Your task to perform on an android device: uninstall "Clock" Image 0: 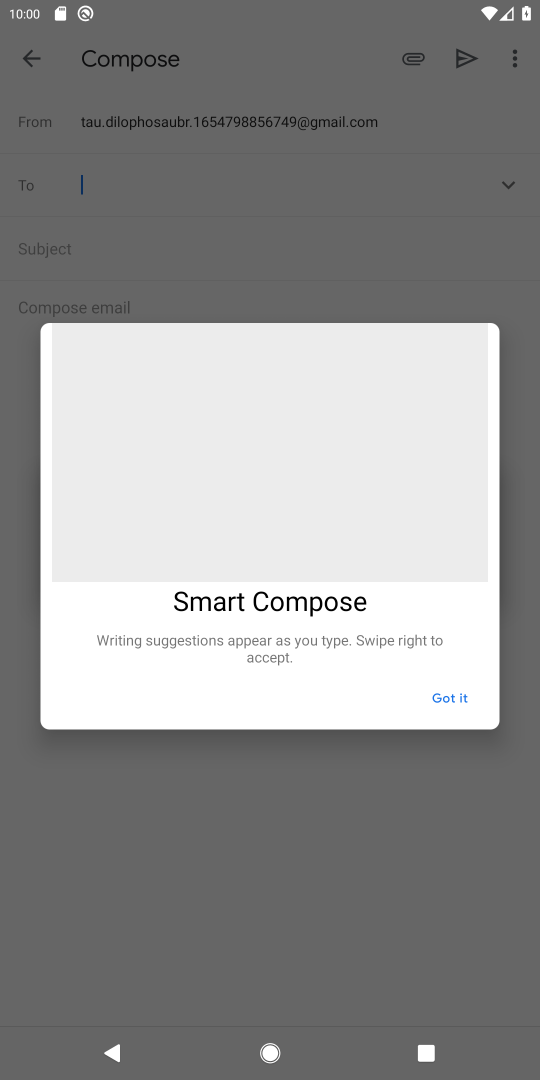
Step 0: task impossible